Your task to perform on an android device: turn off location Image 0: 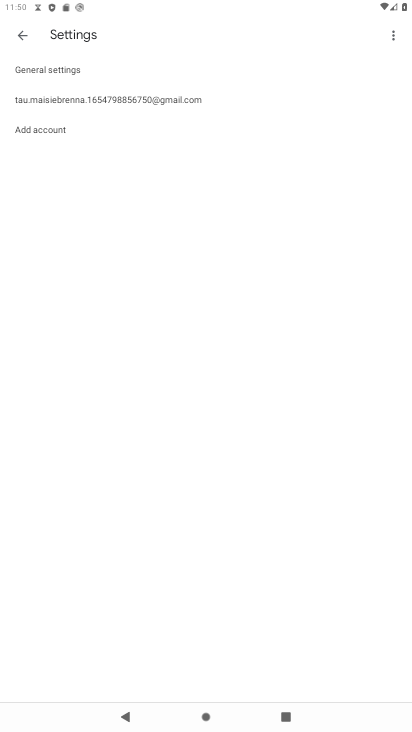
Step 0: press home button
Your task to perform on an android device: turn off location Image 1: 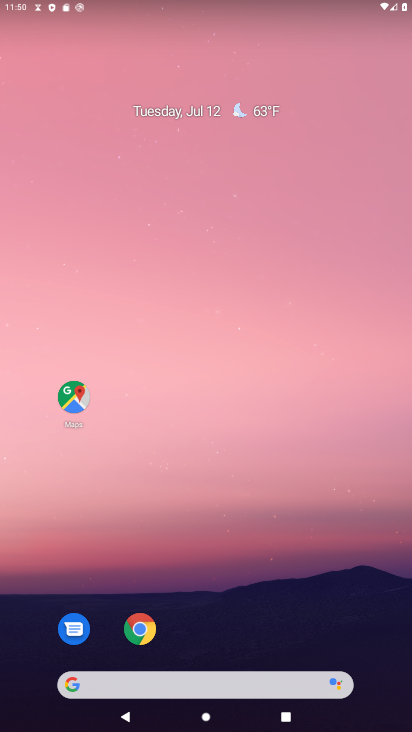
Step 1: drag from (327, 635) to (371, 106)
Your task to perform on an android device: turn off location Image 2: 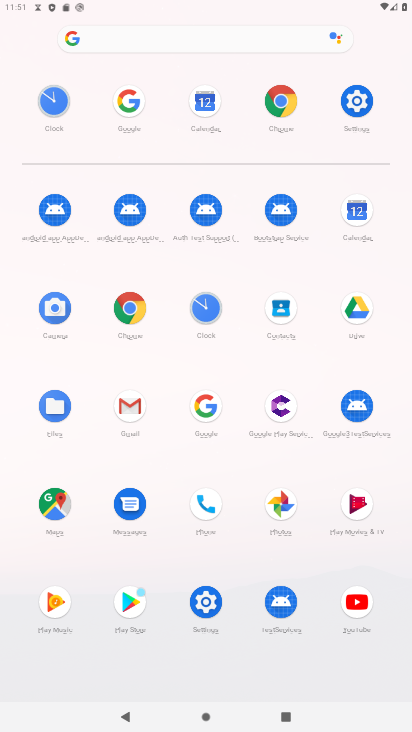
Step 2: click (376, 80)
Your task to perform on an android device: turn off location Image 3: 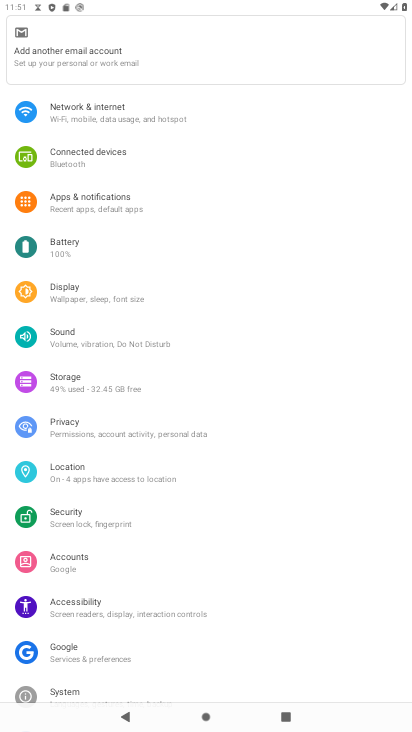
Step 3: click (118, 468)
Your task to perform on an android device: turn off location Image 4: 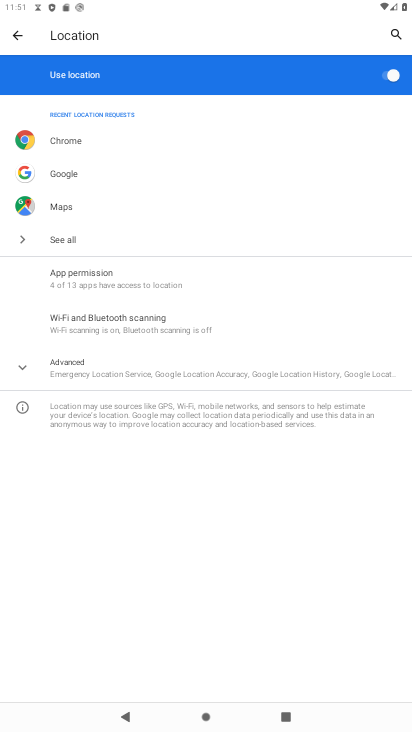
Step 4: click (390, 71)
Your task to perform on an android device: turn off location Image 5: 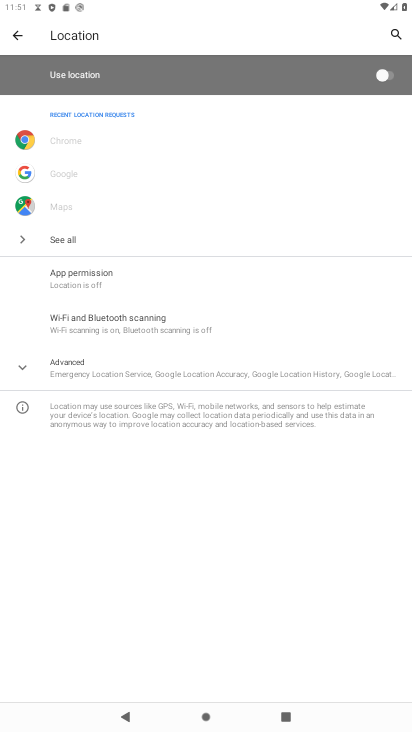
Step 5: task complete